Your task to perform on an android device: open app "Grab" (install if not already installed) Image 0: 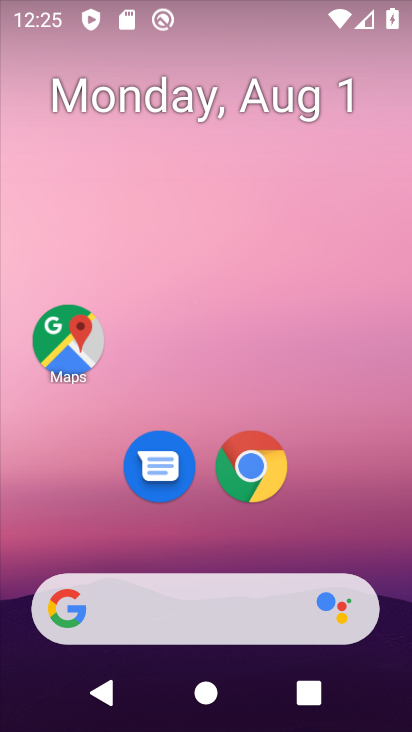
Step 0: drag from (218, 392) to (31, 374)
Your task to perform on an android device: open app "Grab" (install if not already installed) Image 1: 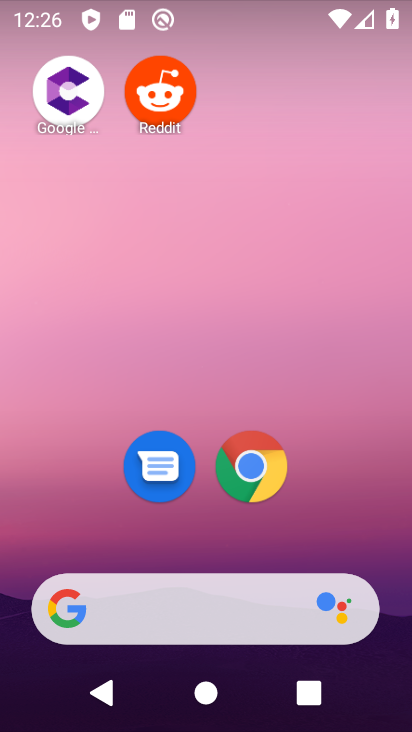
Step 1: drag from (194, 558) to (112, 48)
Your task to perform on an android device: open app "Grab" (install if not already installed) Image 2: 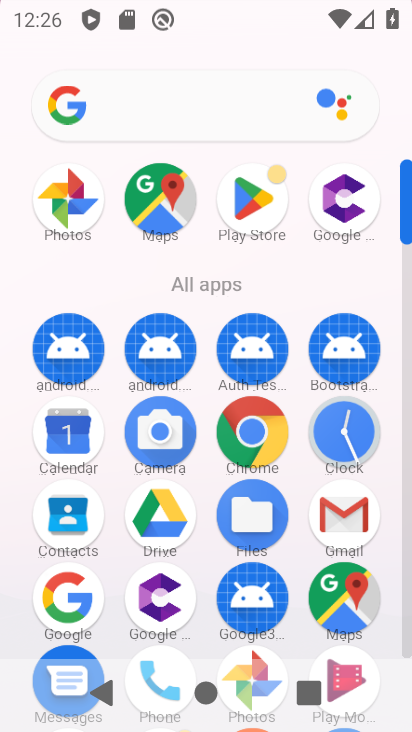
Step 2: click (252, 198)
Your task to perform on an android device: open app "Grab" (install if not already installed) Image 3: 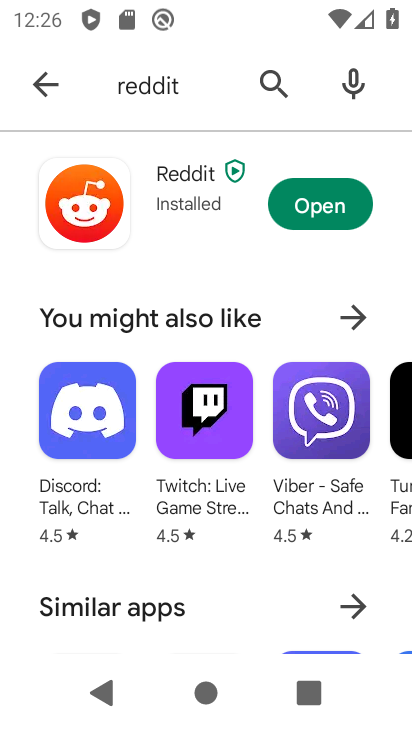
Step 3: click (171, 74)
Your task to perform on an android device: open app "Grab" (install if not already installed) Image 4: 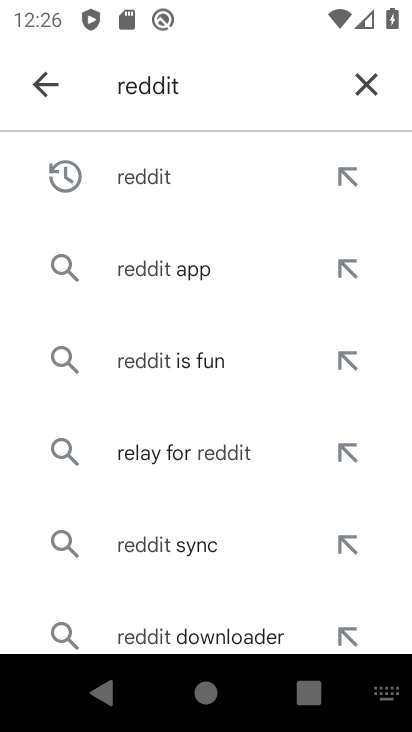
Step 4: click (370, 85)
Your task to perform on an android device: open app "Grab" (install if not already installed) Image 5: 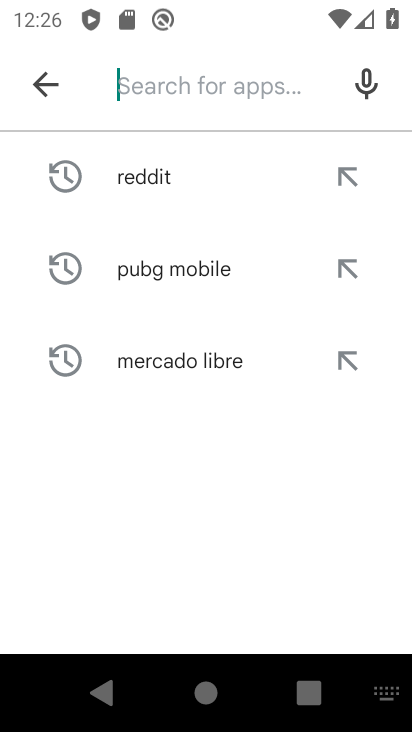
Step 5: type ""
Your task to perform on an android device: open app "Grab" (install if not already installed) Image 6: 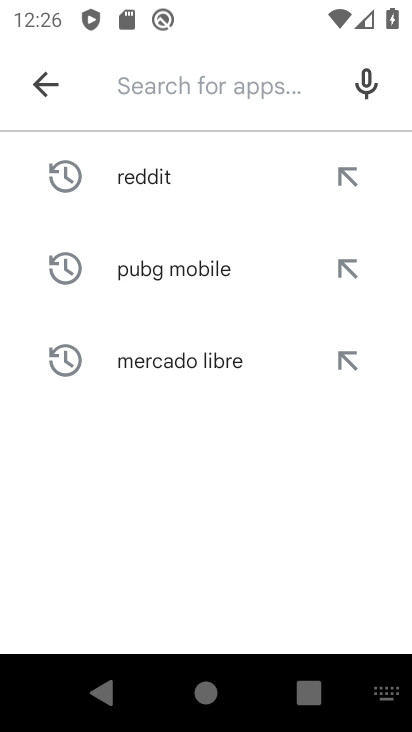
Step 6: type "grab"
Your task to perform on an android device: open app "Grab" (install if not already installed) Image 7: 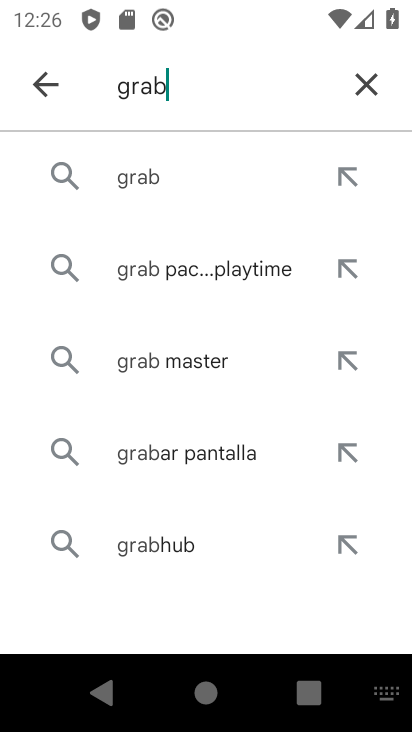
Step 7: click (167, 173)
Your task to perform on an android device: open app "Grab" (install if not already installed) Image 8: 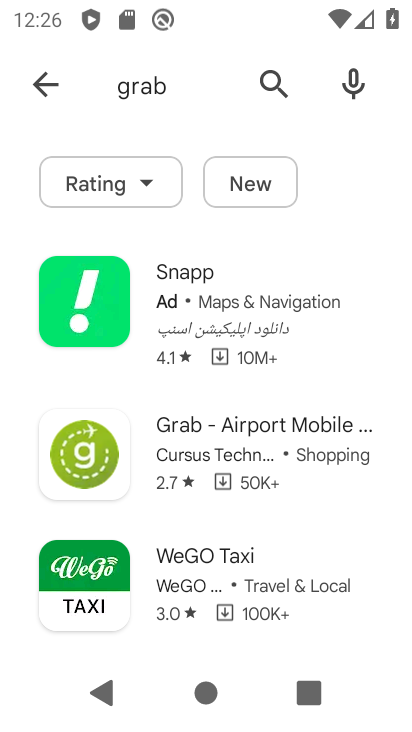
Step 8: click (132, 462)
Your task to perform on an android device: open app "Grab" (install if not already installed) Image 9: 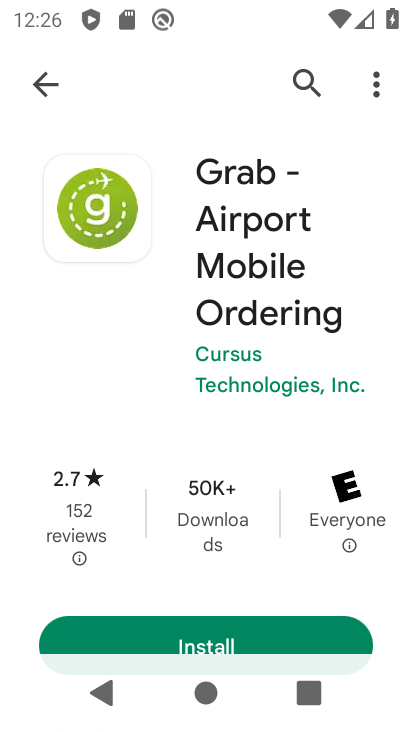
Step 9: drag from (206, 582) to (212, 274)
Your task to perform on an android device: open app "Grab" (install if not already installed) Image 10: 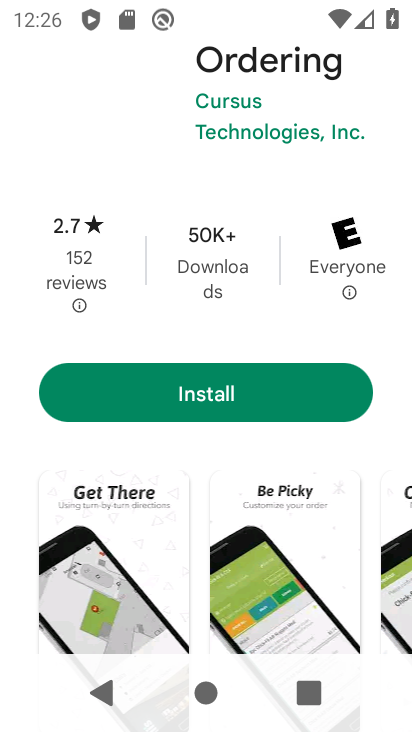
Step 10: click (198, 401)
Your task to perform on an android device: open app "Grab" (install if not already installed) Image 11: 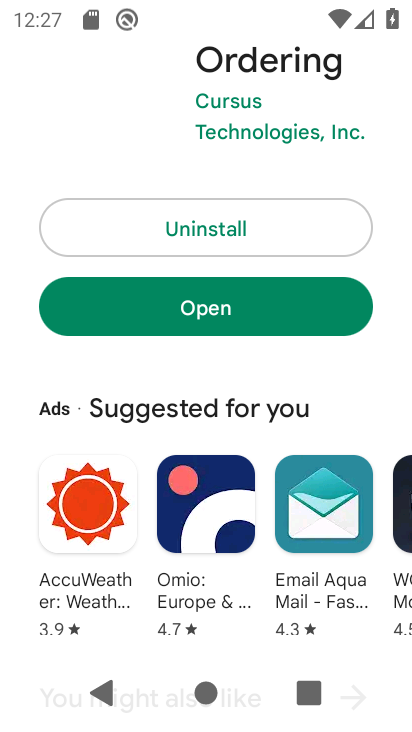
Step 11: click (236, 302)
Your task to perform on an android device: open app "Grab" (install if not already installed) Image 12: 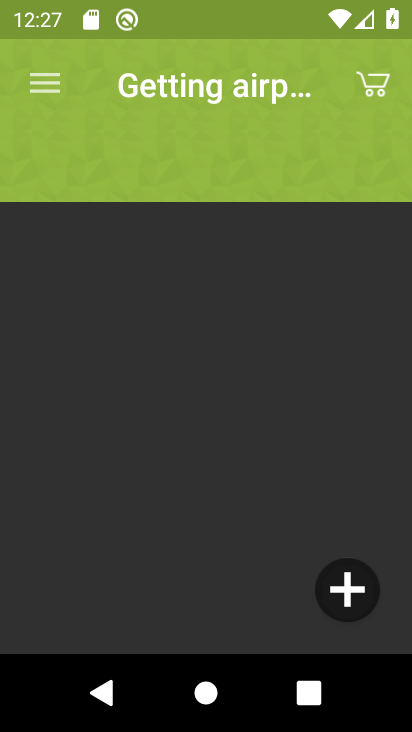
Step 12: task complete